Your task to perform on an android device: turn on sleep mode Image 0: 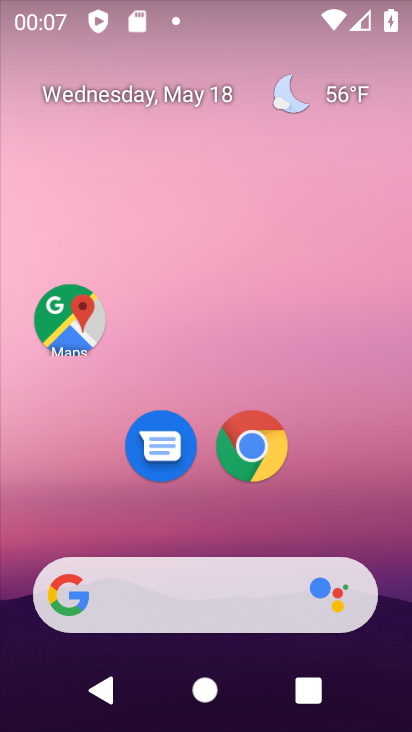
Step 0: drag from (278, 424) to (217, 211)
Your task to perform on an android device: turn on sleep mode Image 1: 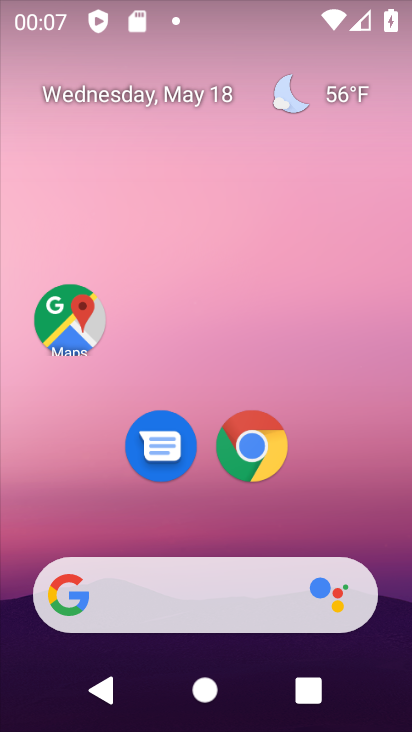
Step 1: click (257, 219)
Your task to perform on an android device: turn on sleep mode Image 2: 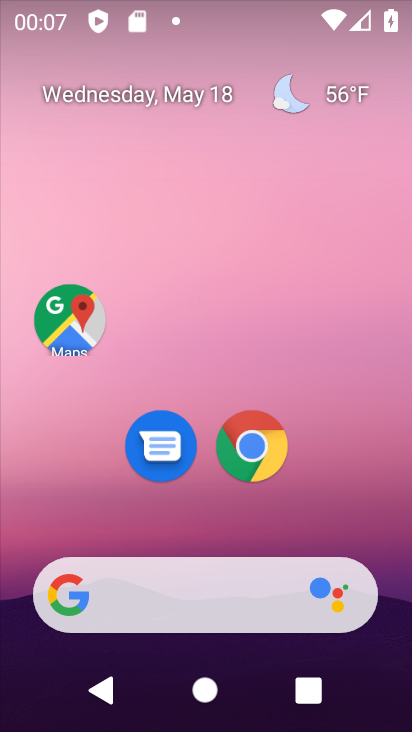
Step 2: drag from (295, 529) to (223, 284)
Your task to perform on an android device: turn on sleep mode Image 3: 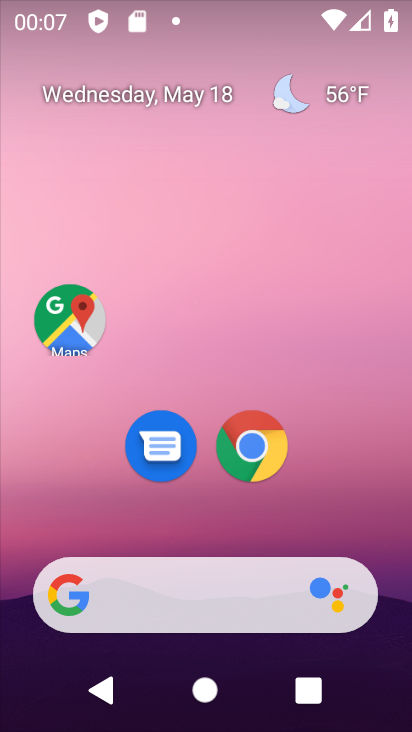
Step 3: drag from (378, 644) to (278, 26)
Your task to perform on an android device: turn on sleep mode Image 4: 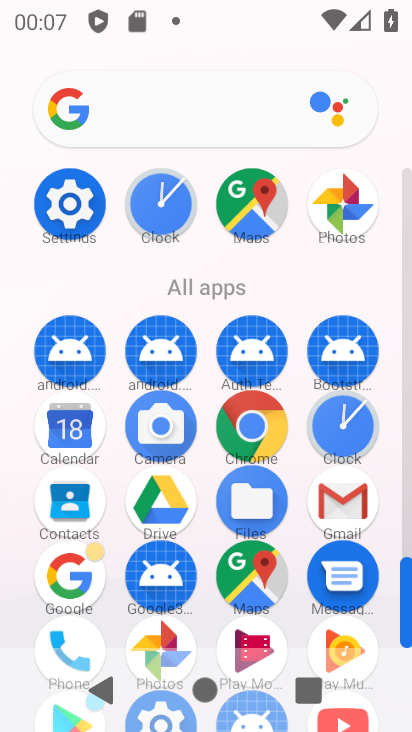
Step 4: click (82, 205)
Your task to perform on an android device: turn on sleep mode Image 5: 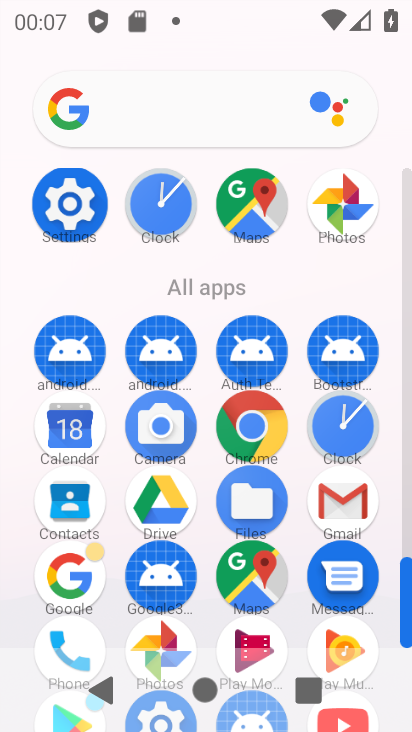
Step 5: click (84, 203)
Your task to perform on an android device: turn on sleep mode Image 6: 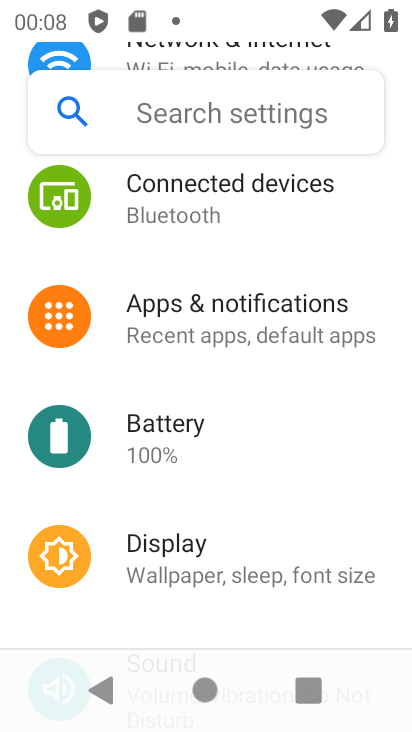
Step 6: click (176, 543)
Your task to perform on an android device: turn on sleep mode Image 7: 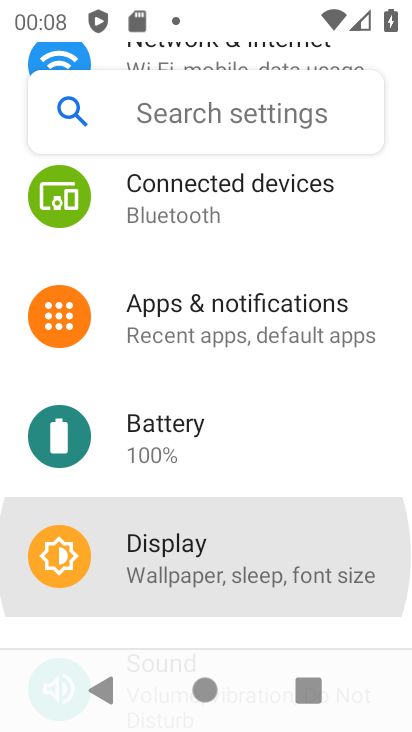
Step 7: click (176, 546)
Your task to perform on an android device: turn on sleep mode Image 8: 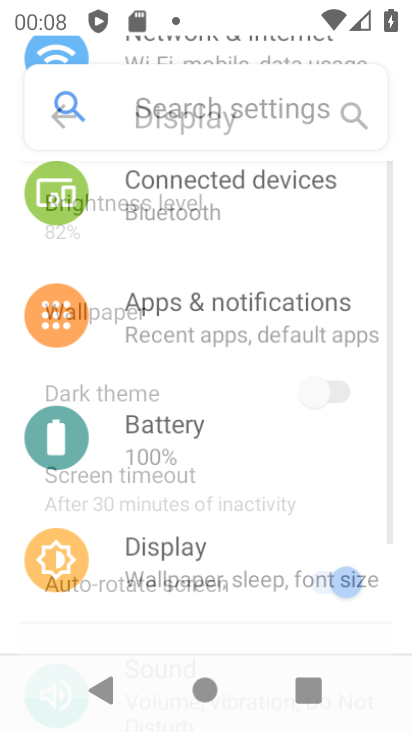
Step 8: click (176, 546)
Your task to perform on an android device: turn on sleep mode Image 9: 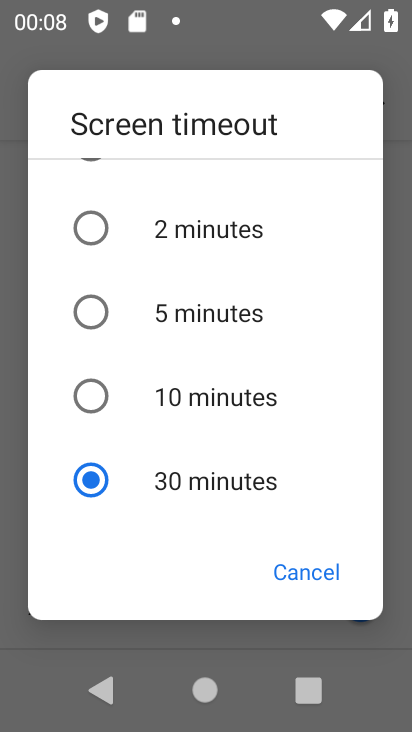
Step 9: task complete